Your task to perform on an android device: change the clock display to show seconds Image 0: 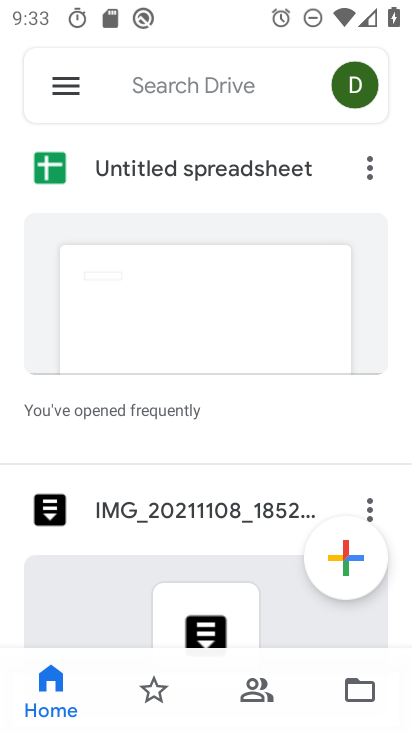
Step 0: press home button
Your task to perform on an android device: change the clock display to show seconds Image 1: 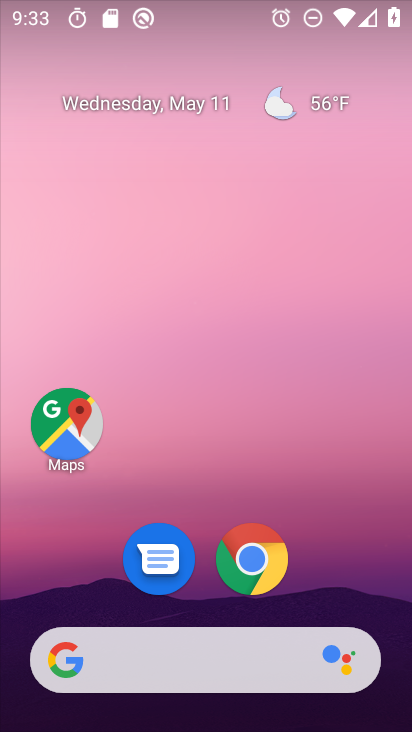
Step 1: drag from (347, 547) to (321, 128)
Your task to perform on an android device: change the clock display to show seconds Image 2: 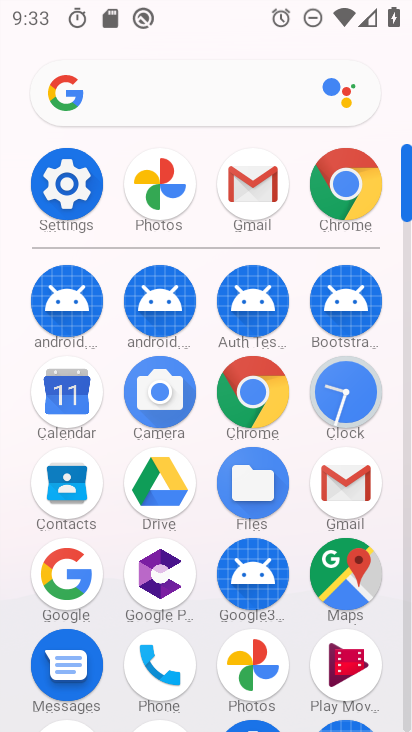
Step 2: click (338, 379)
Your task to perform on an android device: change the clock display to show seconds Image 3: 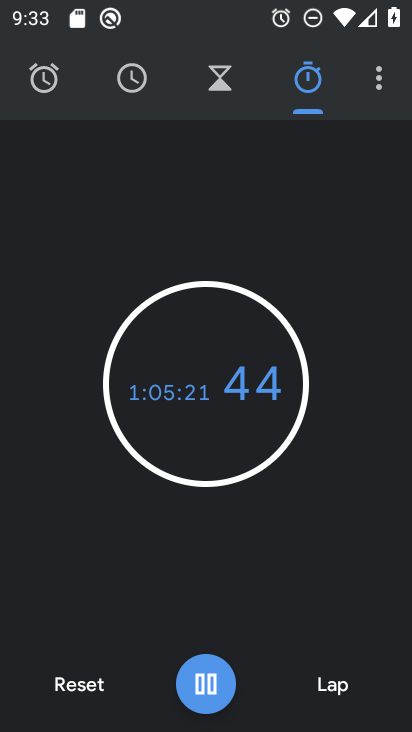
Step 3: click (389, 89)
Your task to perform on an android device: change the clock display to show seconds Image 4: 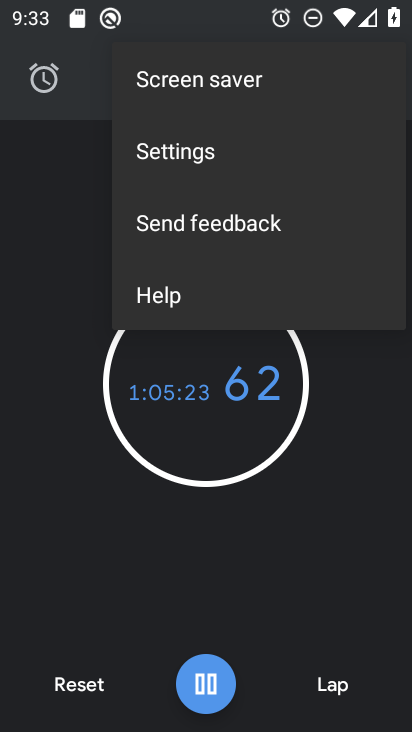
Step 4: click (193, 155)
Your task to perform on an android device: change the clock display to show seconds Image 5: 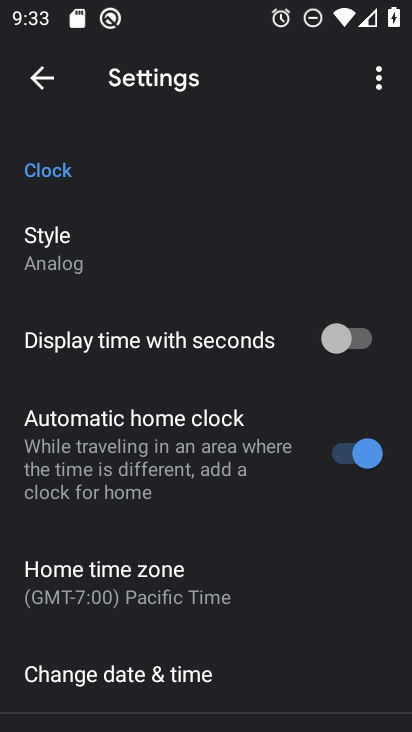
Step 5: click (375, 337)
Your task to perform on an android device: change the clock display to show seconds Image 6: 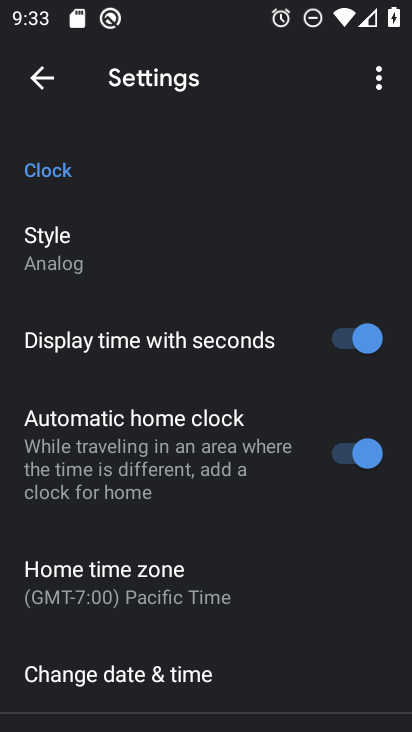
Step 6: task complete